Your task to perform on an android device: make emails show in primary in the gmail app Image 0: 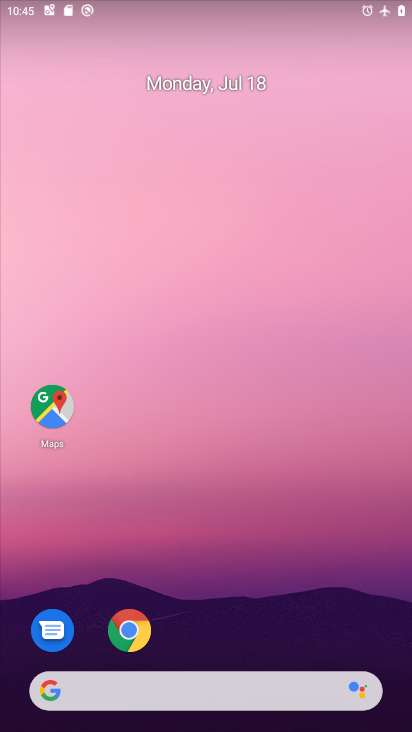
Step 0: drag from (184, 633) to (196, 188)
Your task to perform on an android device: make emails show in primary in the gmail app Image 1: 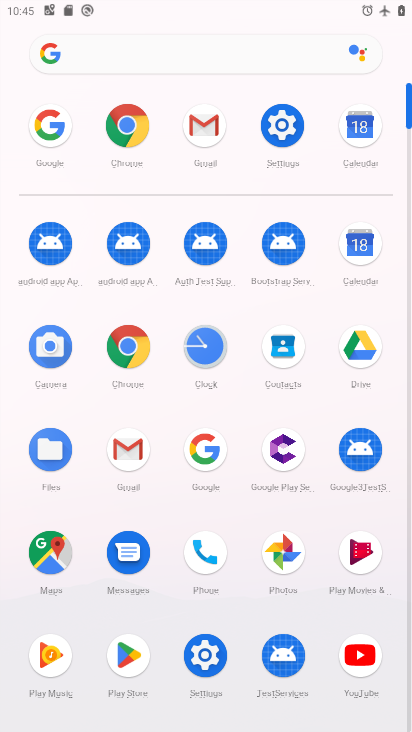
Step 1: click (196, 137)
Your task to perform on an android device: make emails show in primary in the gmail app Image 2: 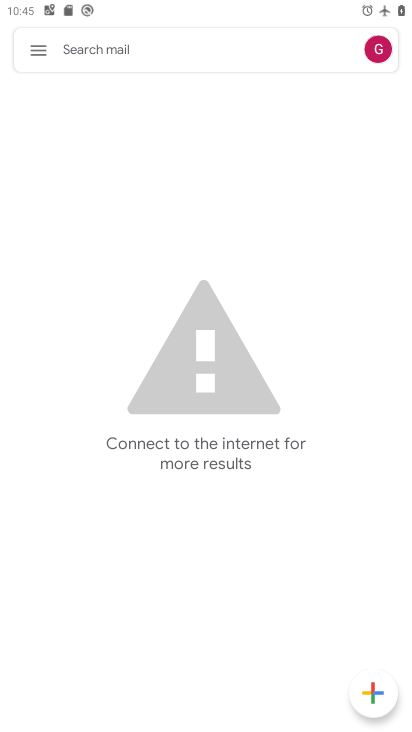
Step 2: click (30, 46)
Your task to perform on an android device: make emails show in primary in the gmail app Image 3: 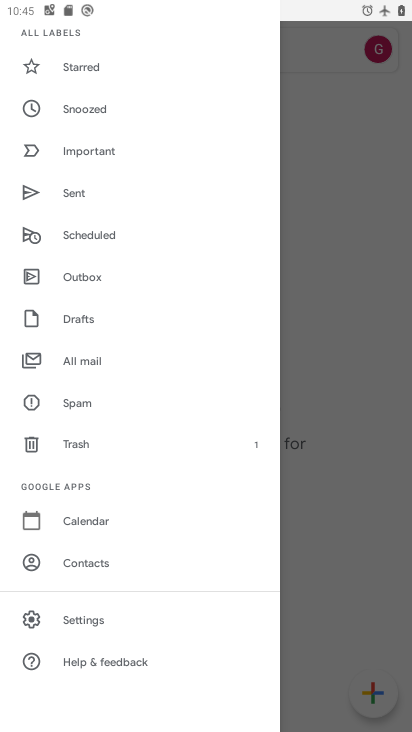
Step 3: click (120, 615)
Your task to perform on an android device: make emails show in primary in the gmail app Image 4: 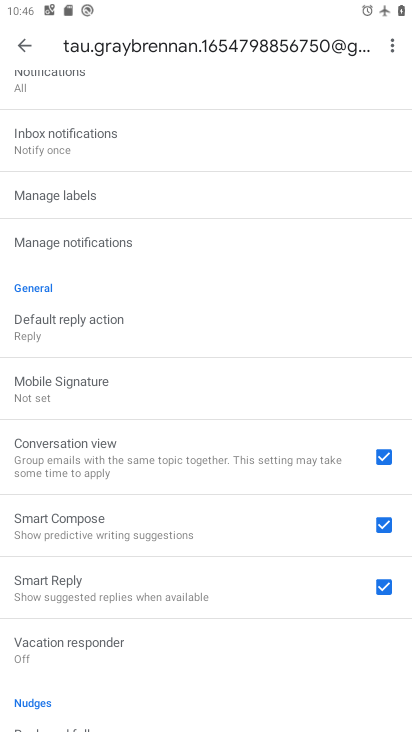
Step 4: click (120, 147)
Your task to perform on an android device: make emails show in primary in the gmail app Image 5: 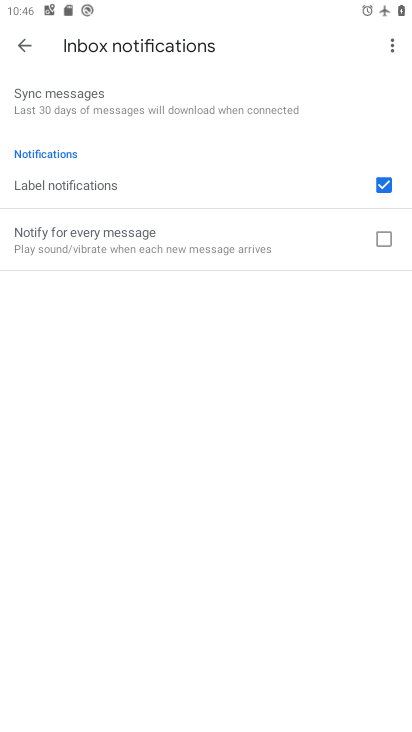
Step 5: click (9, 43)
Your task to perform on an android device: make emails show in primary in the gmail app Image 6: 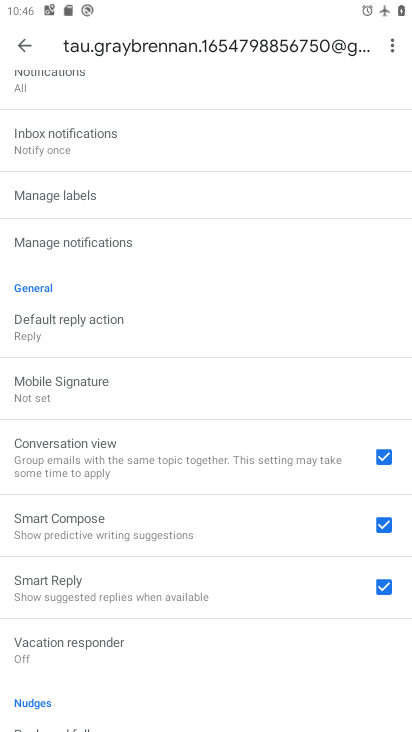
Step 6: drag from (121, 196) to (127, 352)
Your task to perform on an android device: make emails show in primary in the gmail app Image 7: 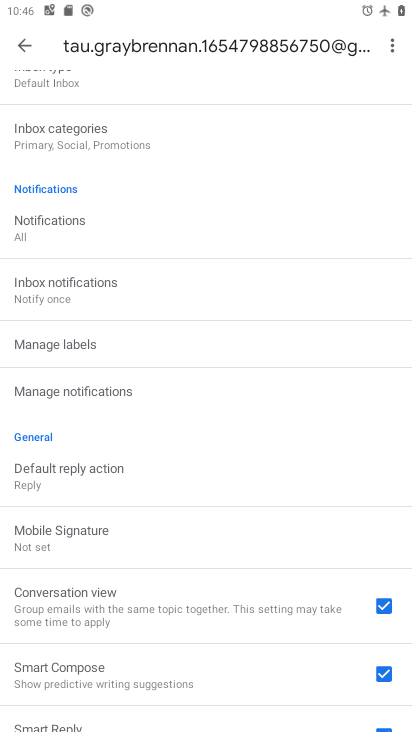
Step 7: drag from (112, 150) to (145, 369)
Your task to perform on an android device: make emails show in primary in the gmail app Image 8: 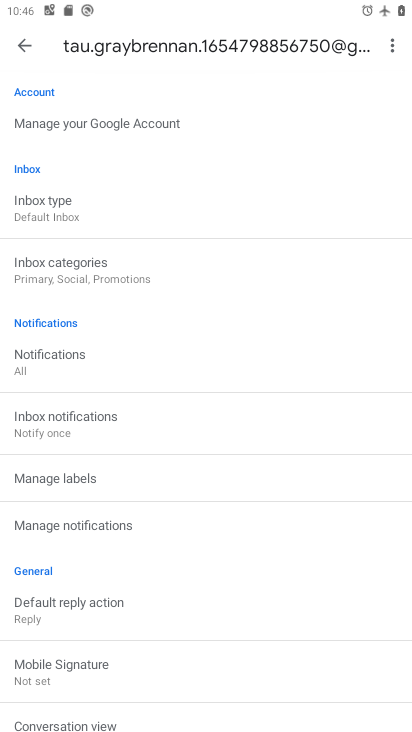
Step 8: click (83, 203)
Your task to perform on an android device: make emails show in primary in the gmail app Image 9: 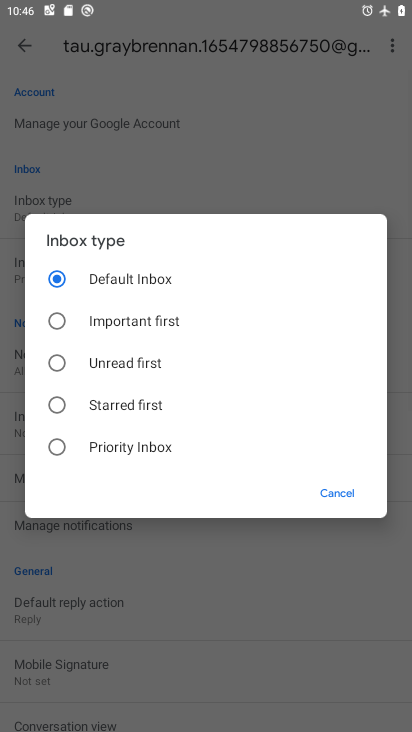
Step 9: task complete